Your task to perform on an android device: turn off notifications in google photos Image 0: 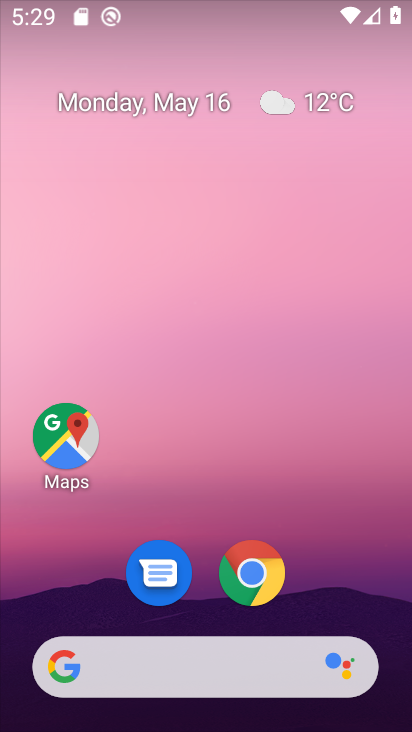
Step 0: drag from (160, 584) to (240, 133)
Your task to perform on an android device: turn off notifications in google photos Image 1: 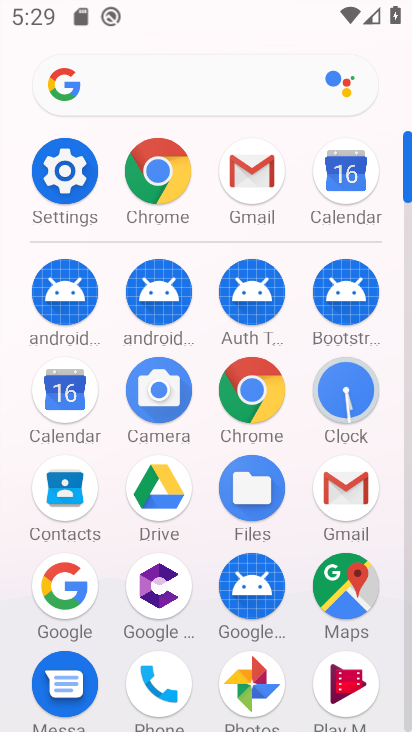
Step 1: click (264, 677)
Your task to perform on an android device: turn off notifications in google photos Image 2: 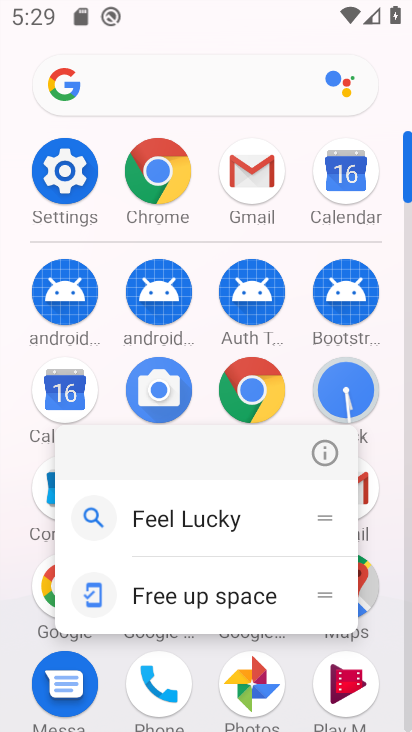
Step 2: click (328, 455)
Your task to perform on an android device: turn off notifications in google photos Image 3: 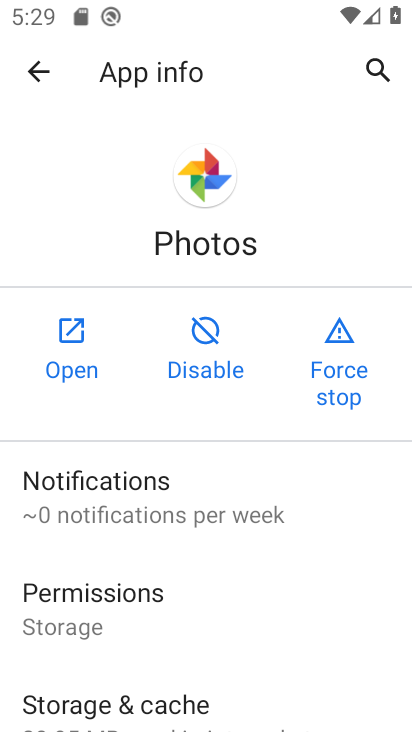
Step 3: click (145, 509)
Your task to perform on an android device: turn off notifications in google photos Image 4: 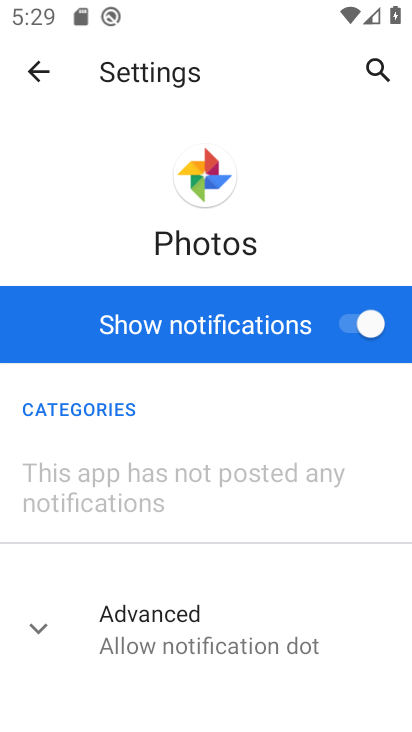
Step 4: click (367, 320)
Your task to perform on an android device: turn off notifications in google photos Image 5: 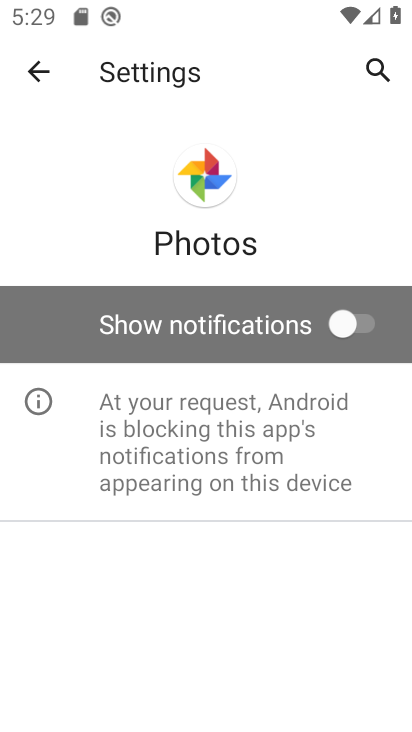
Step 5: task complete